Your task to perform on an android device: toggle show notifications on the lock screen Image 0: 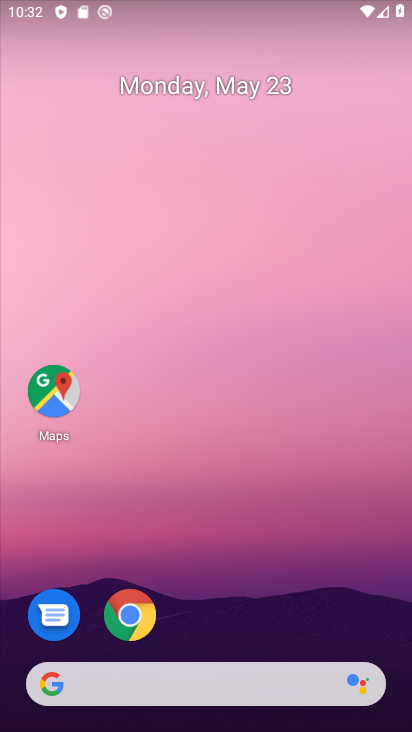
Step 0: drag from (205, 631) to (219, 226)
Your task to perform on an android device: toggle show notifications on the lock screen Image 1: 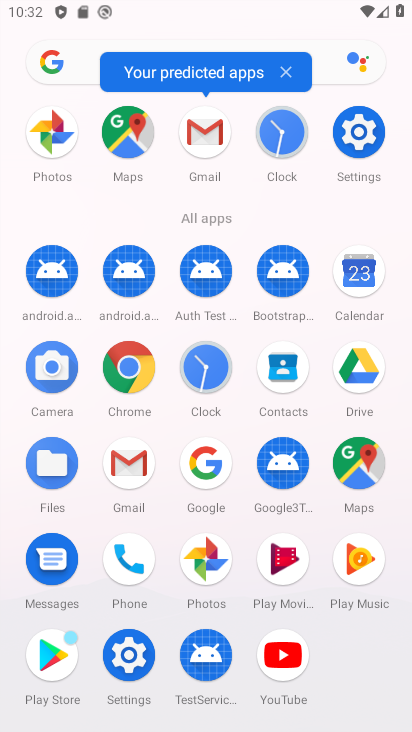
Step 1: click (349, 115)
Your task to perform on an android device: toggle show notifications on the lock screen Image 2: 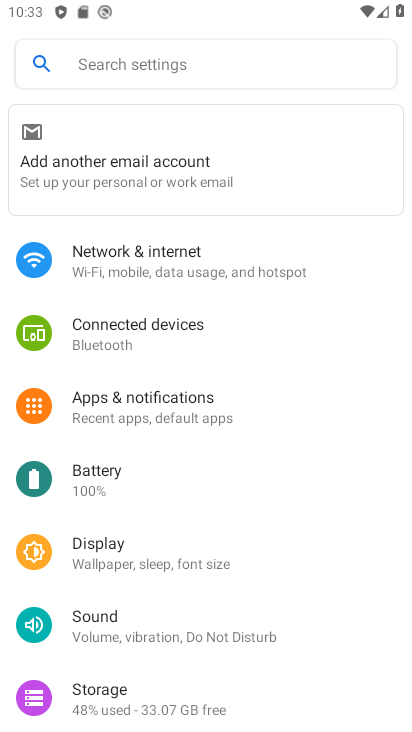
Step 2: click (214, 389)
Your task to perform on an android device: toggle show notifications on the lock screen Image 3: 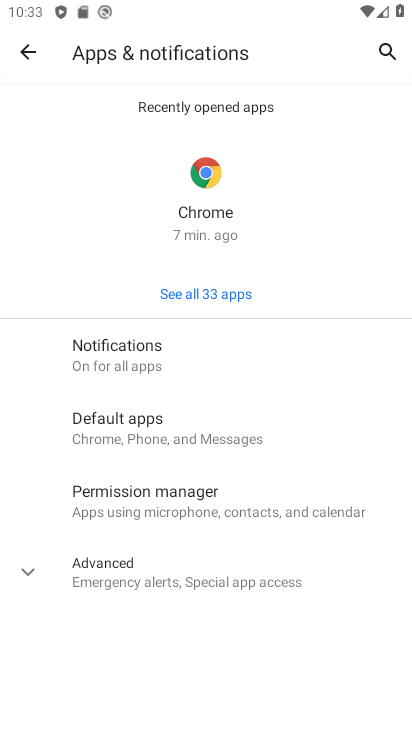
Step 3: click (166, 361)
Your task to perform on an android device: toggle show notifications on the lock screen Image 4: 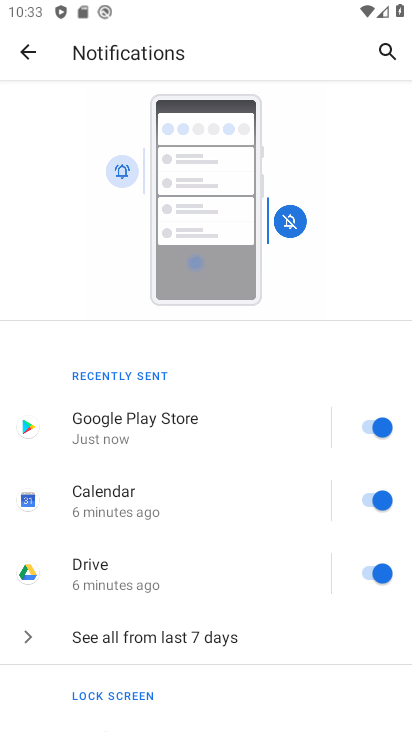
Step 4: drag from (89, 638) to (170, 213)
Your task to perform on an android device: toggle show notifications on the lock screen Image 5: 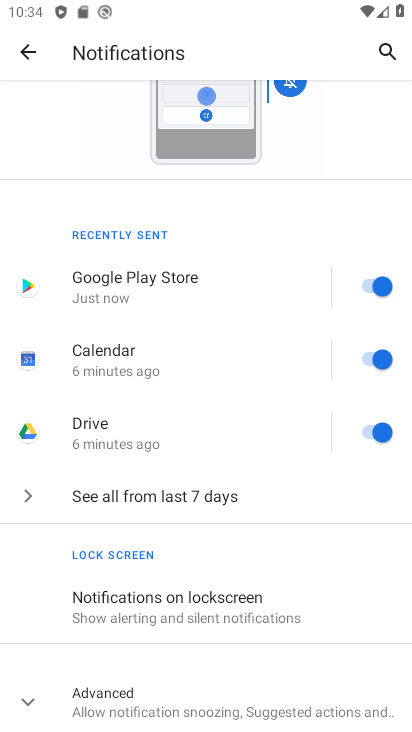
Step 5: click (103, 695)
Your task to perform on an android device: toggle show notifications on the lock screen Image 6: 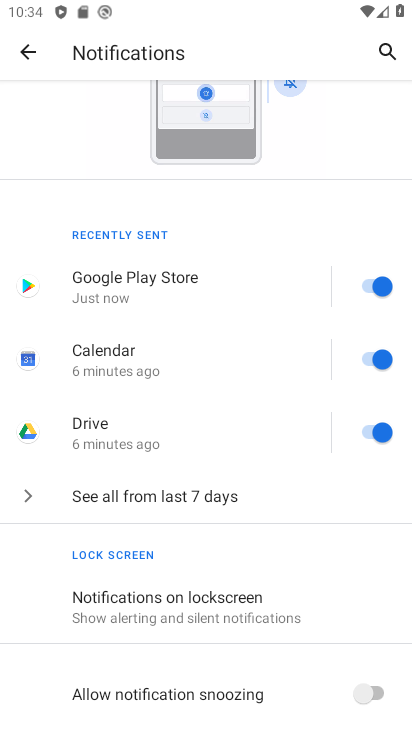
Step 6: click (149, 613)
Your task to perform on an android device: toggle show notifications on the lock screen Image 7: 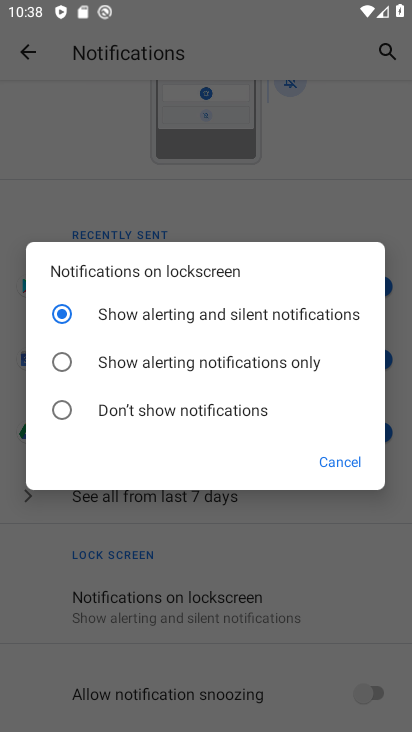
Step 7: task complete